Your task to perform on an android device: View the shopping cart on bestbuy.com. Add "razer huntsman" to the cart on bestbuy.com, then select checkout. Image 0: 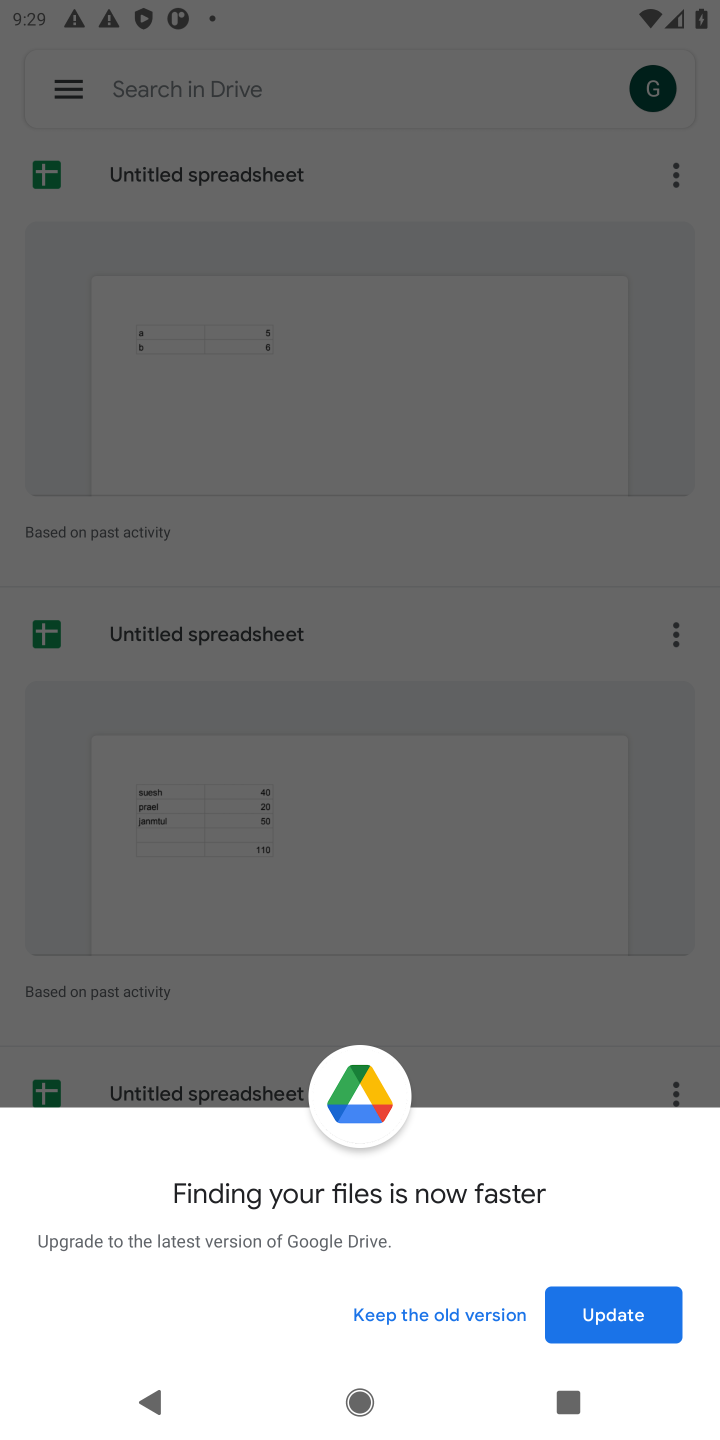
Step 0: press home button
Your task to perform on an android device: View the shopping cart on bestbuy.com. Add "razer huntsman" to the cart on bestbuy.com, then select checkout. Image 1: 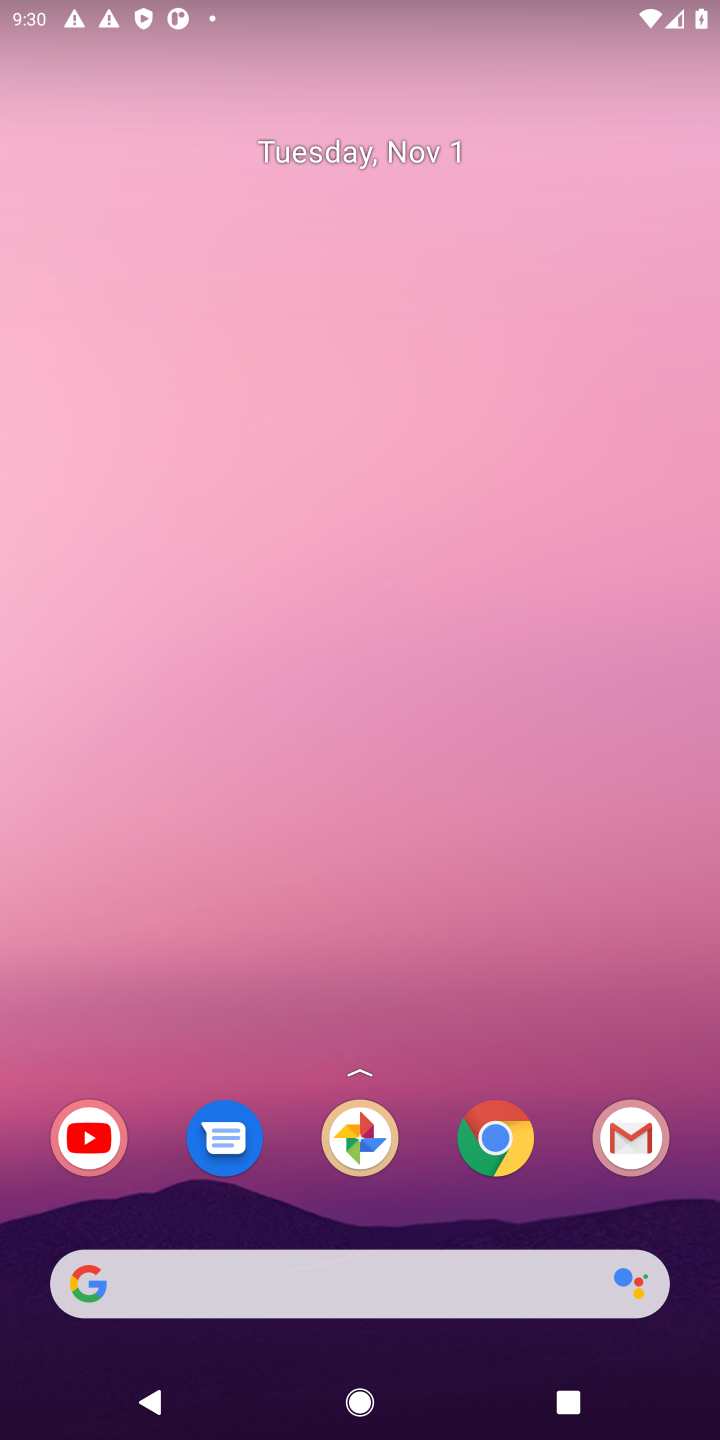
Step 1: click (488, 1121)
Your task to perform on an android device: View the shopping cart on bestbuy.com. Add "razer huntsman" to the cart on bestbuy.com, then select checkout. Image 2: 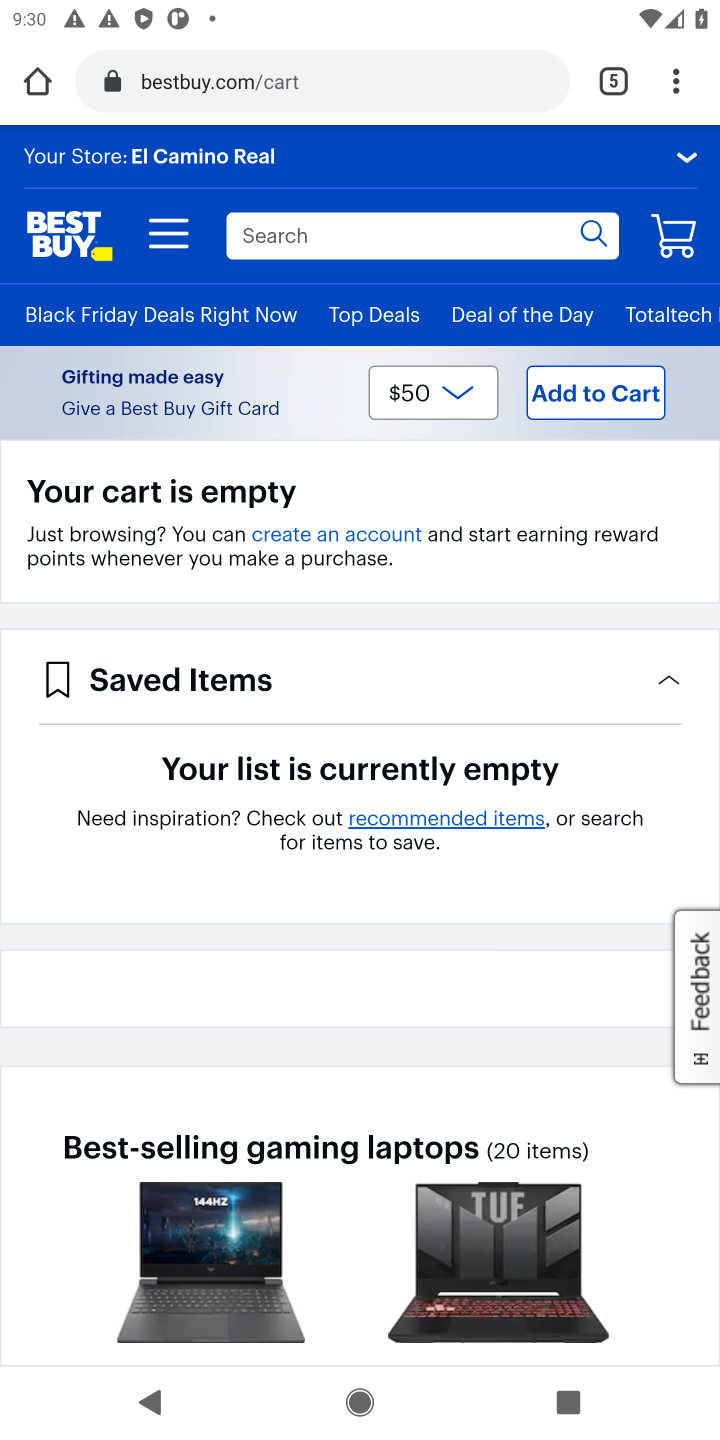
Step 2: drag from (672, 91) to (391, 158)
Your task to perform on an android device: View the shopping cart on bestbuy.com. Add "razer huntsman" to the cart on bestbuy.com, then select checkout. Image 3: 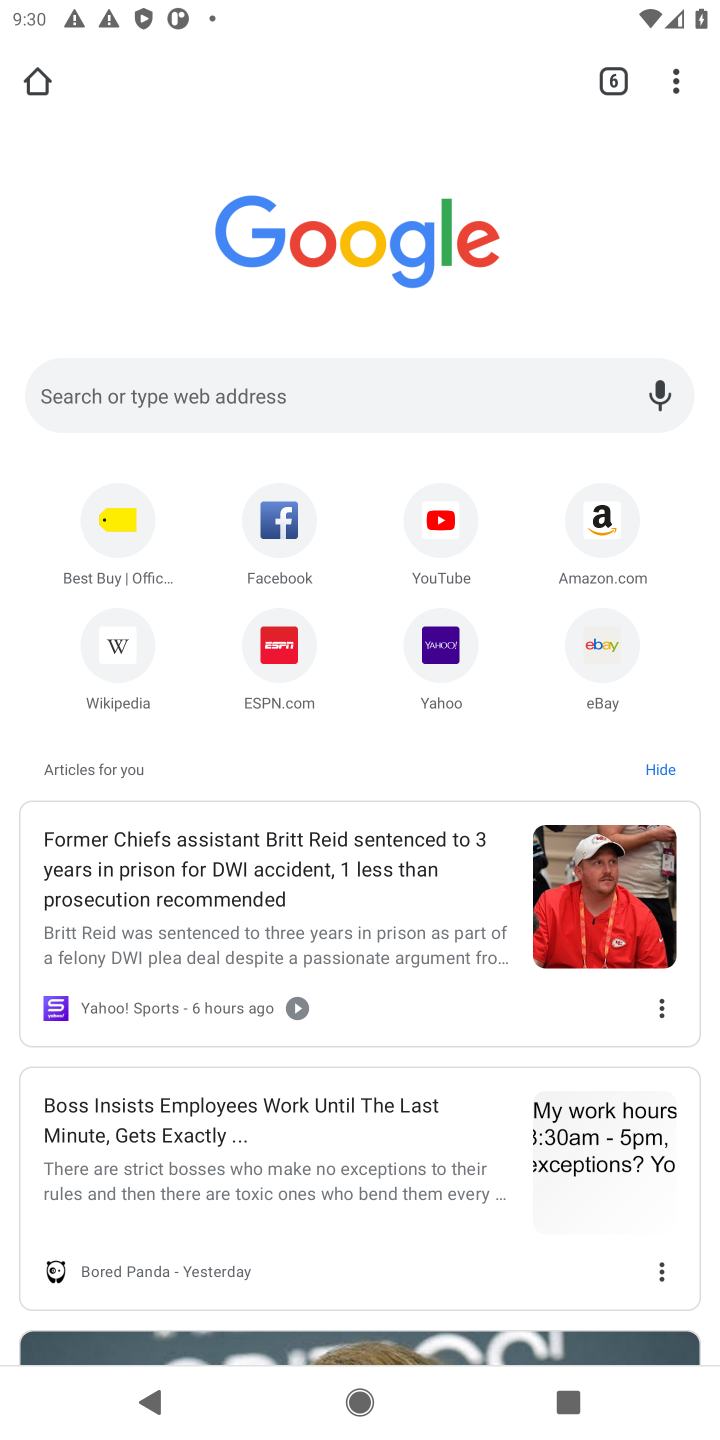
Step 3: click (341, 381)
Your task to perform on an android device: View the shopping cart on bestbuy.com. Add "razer huntsman" to the cart on bestbuy.com, then select checkout. Image 4: 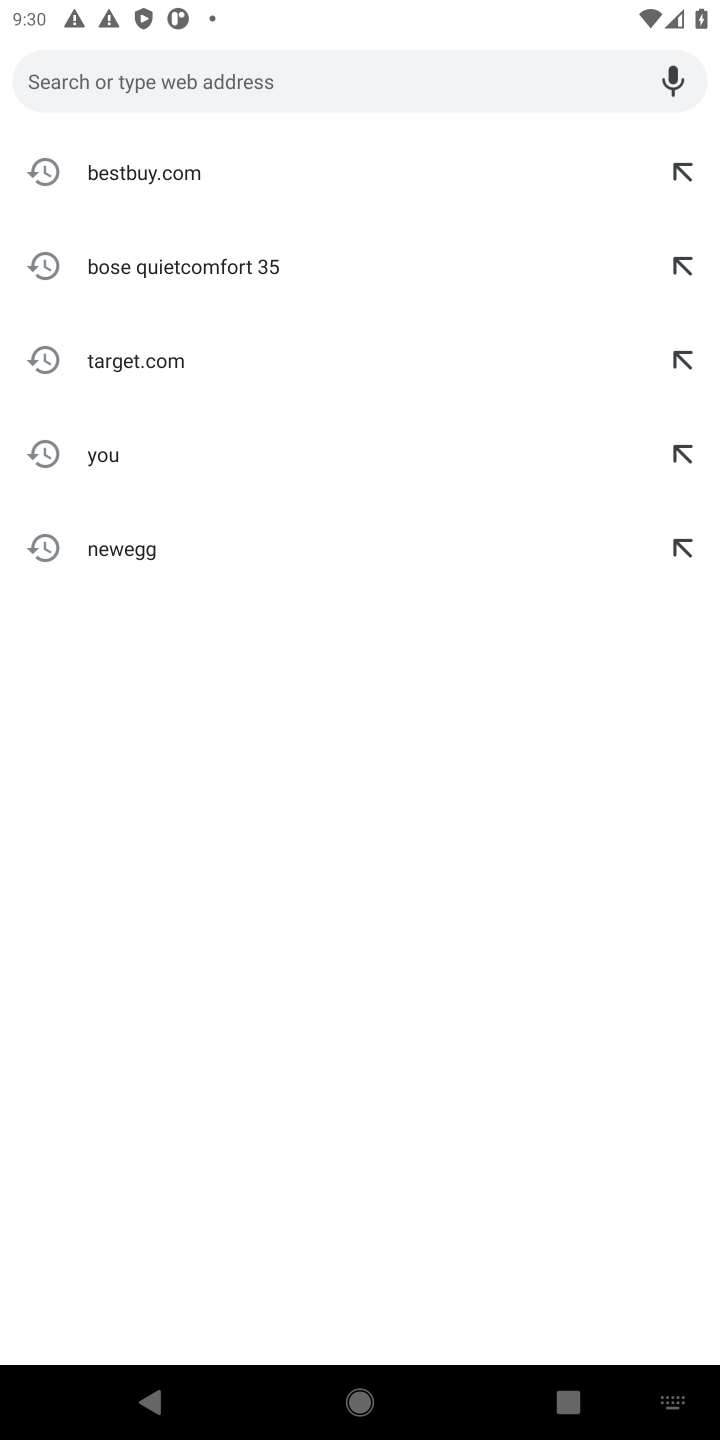
Step 4: type "bestbuy.com."
Your task to perform on an android device: View the shopping cart on bestbuy.com. Add "razer huntsman" to the cart on bestbuy.com, then select checkout. Image 5: 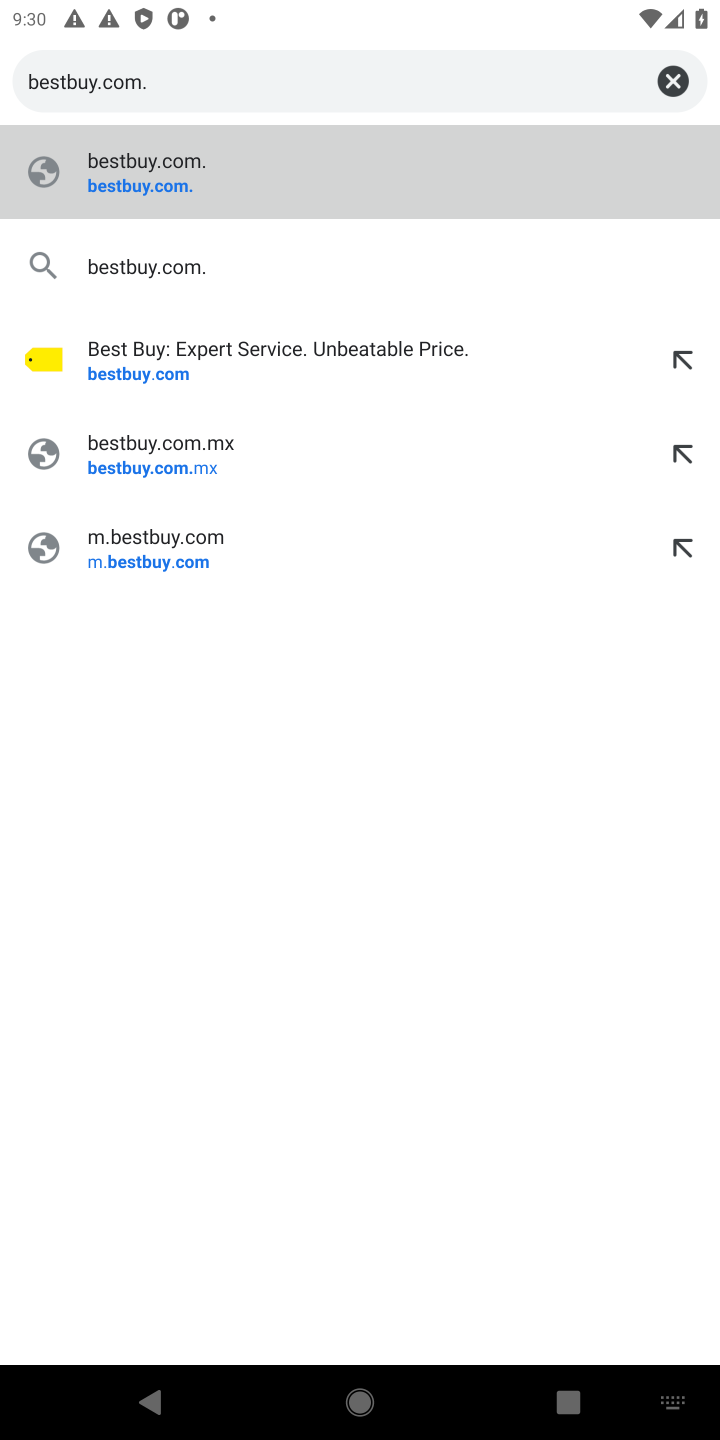
Step 5: type ""
Your task to perform on an android device: View the shopping cart on bestbuy.com. Add "razer huntsman" to the cart on bestbuy.com, then select checkout. Image 6: 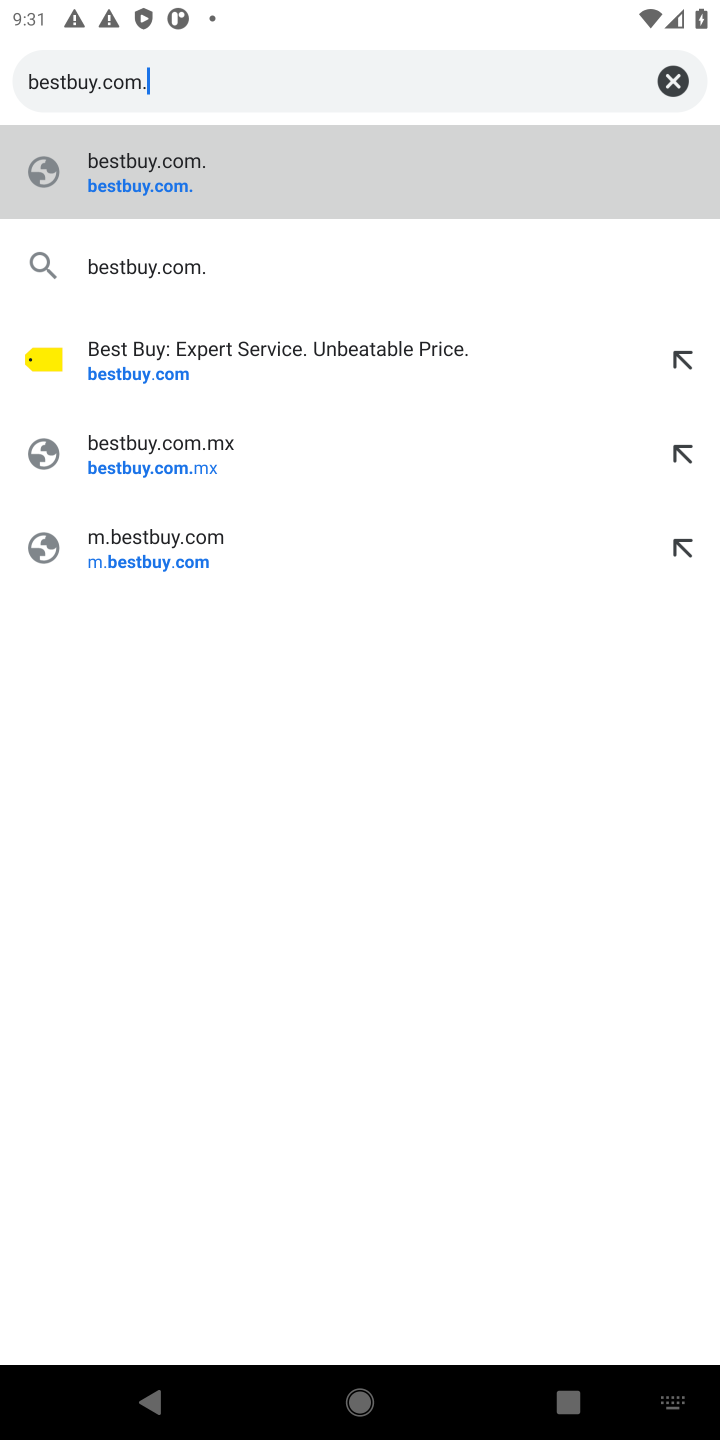
Step 6: click (152, 178)
Your task to perform on an android device: View the shopping cart on bestbuy.com. Add "razer huntsman" to the cart on bestbuy.com, then select checkout. Image 7: 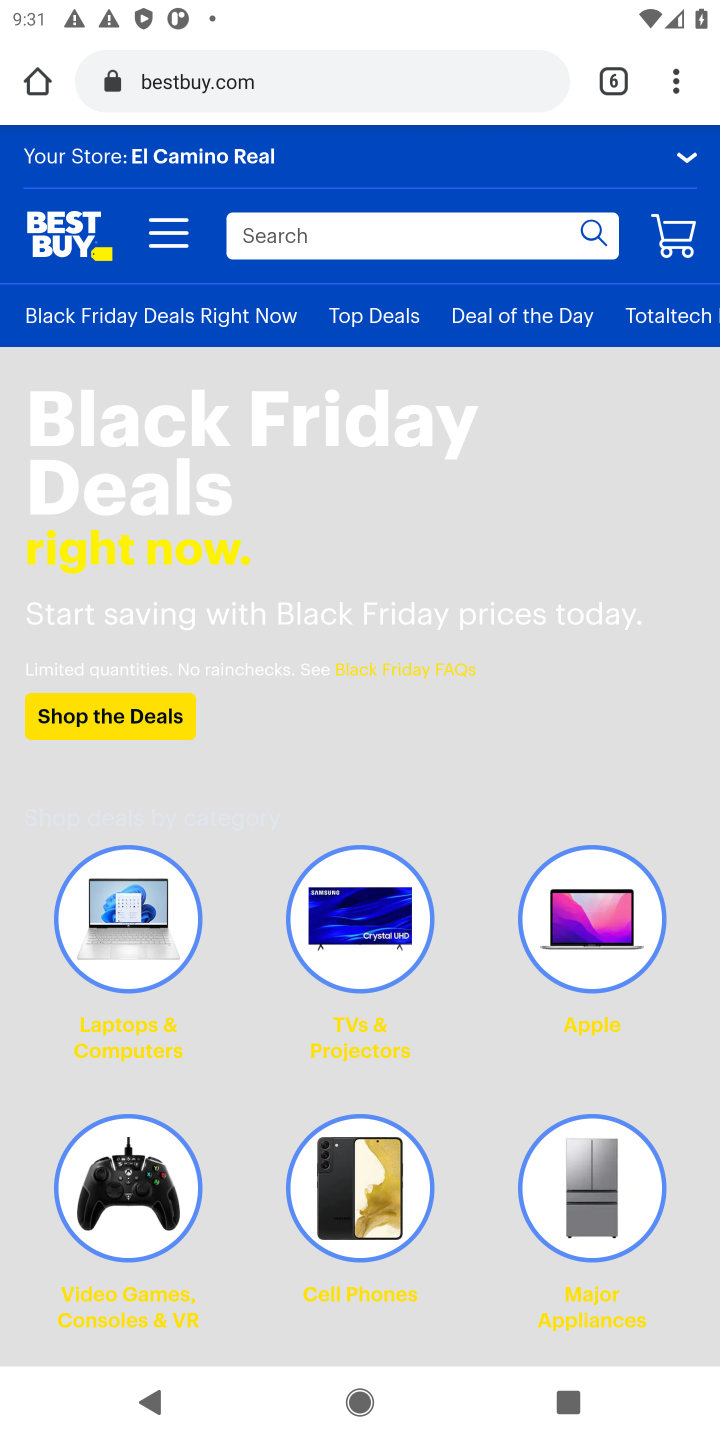
Step 7: click (467, 222)
Your task to perform on an android device: View the shopping cart on bestbuy.com. Add "razer huntsman" to the cart on bestbuy.com, then select checkout. Image 8: 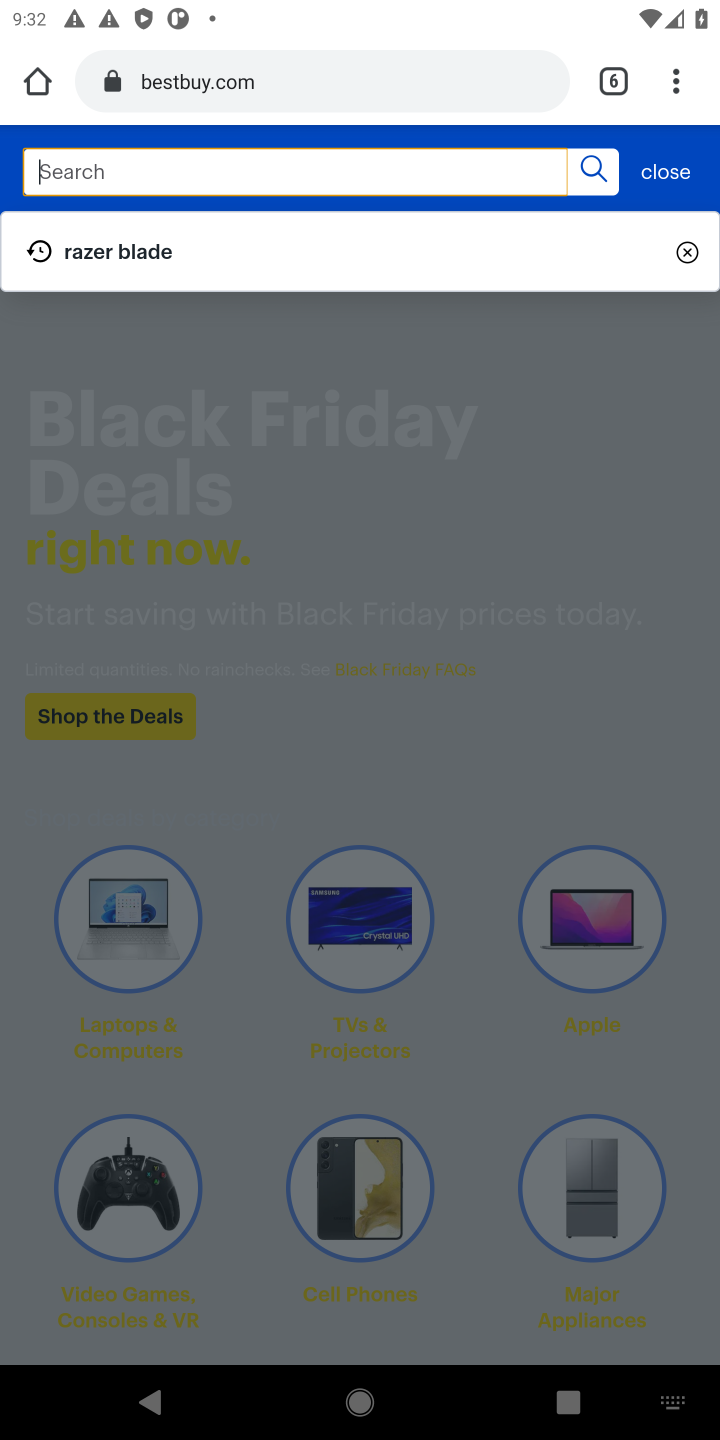
Step 8: type "razer huntsman"
Your task to perform on an android device: View the shopping cart on bestbuy.com. Add "razer huntsman" to the cart on bestbuy.com, then select checkout. Image 9: 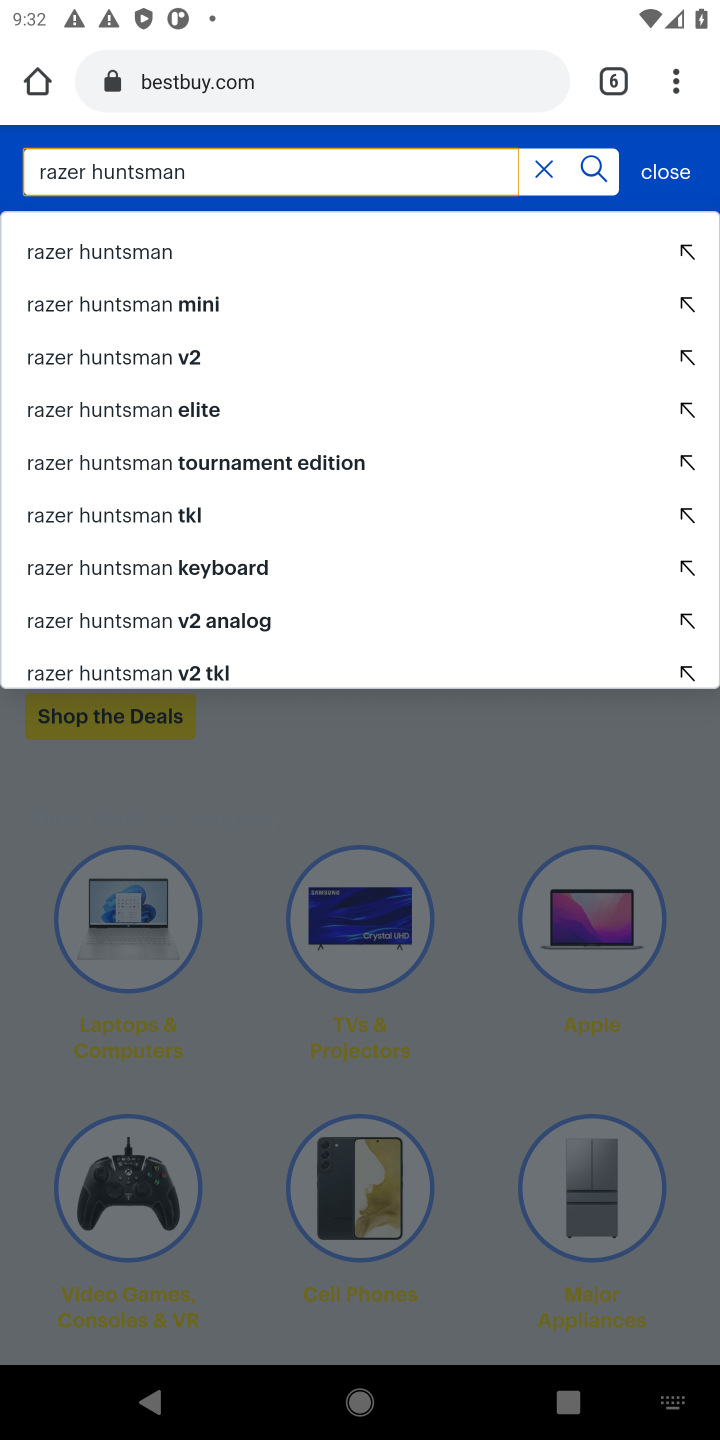
Step 9: click (125, 244)
Your task to perform on an android device: View the shopping cart on bestbuy.com. Add "razer huntsman" to the cart on bestbuy.com, then select checkout. Image 10: 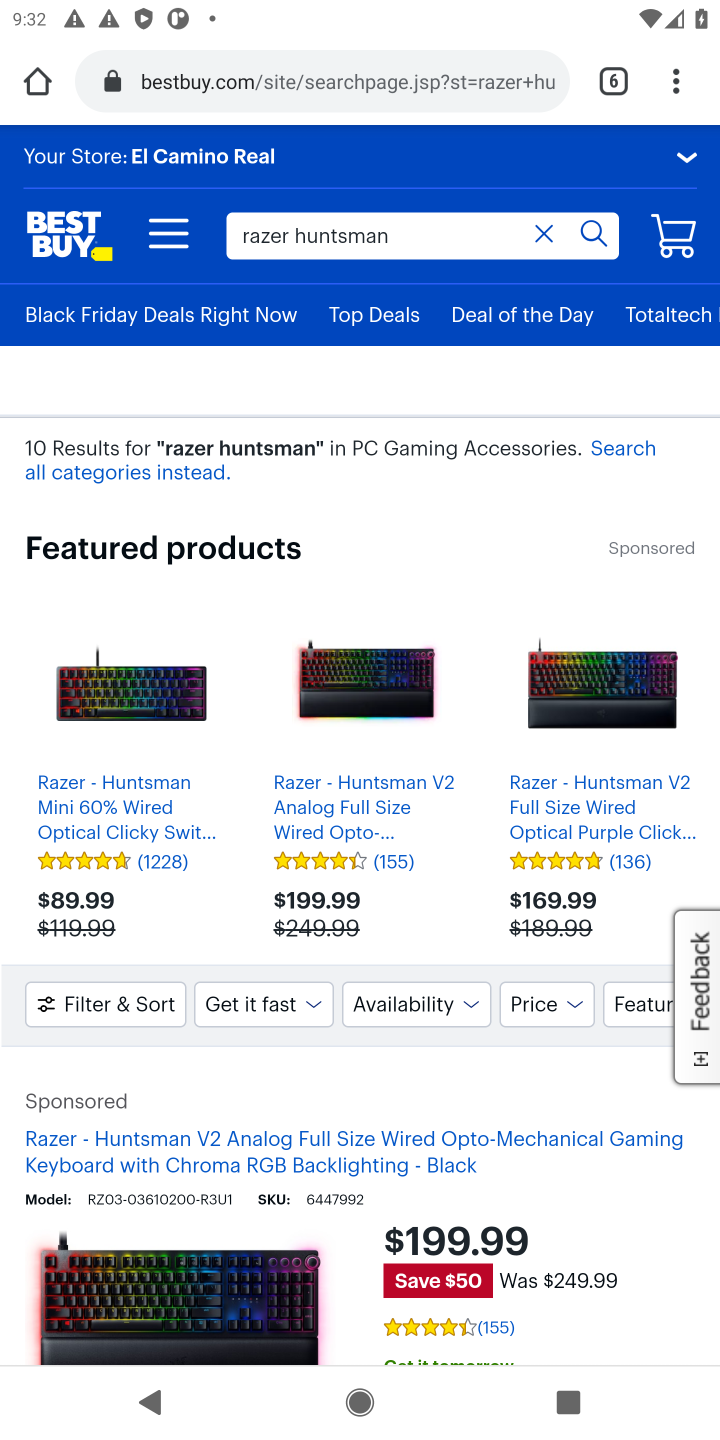
Step 10: drag from (524, 1328) to (493, 970)
Your task to perform on an android device: View the shopping cart on bestbuy.com. Add "razer huntsman" to the cart on bestbuy.com, then select checkout. Image 11: 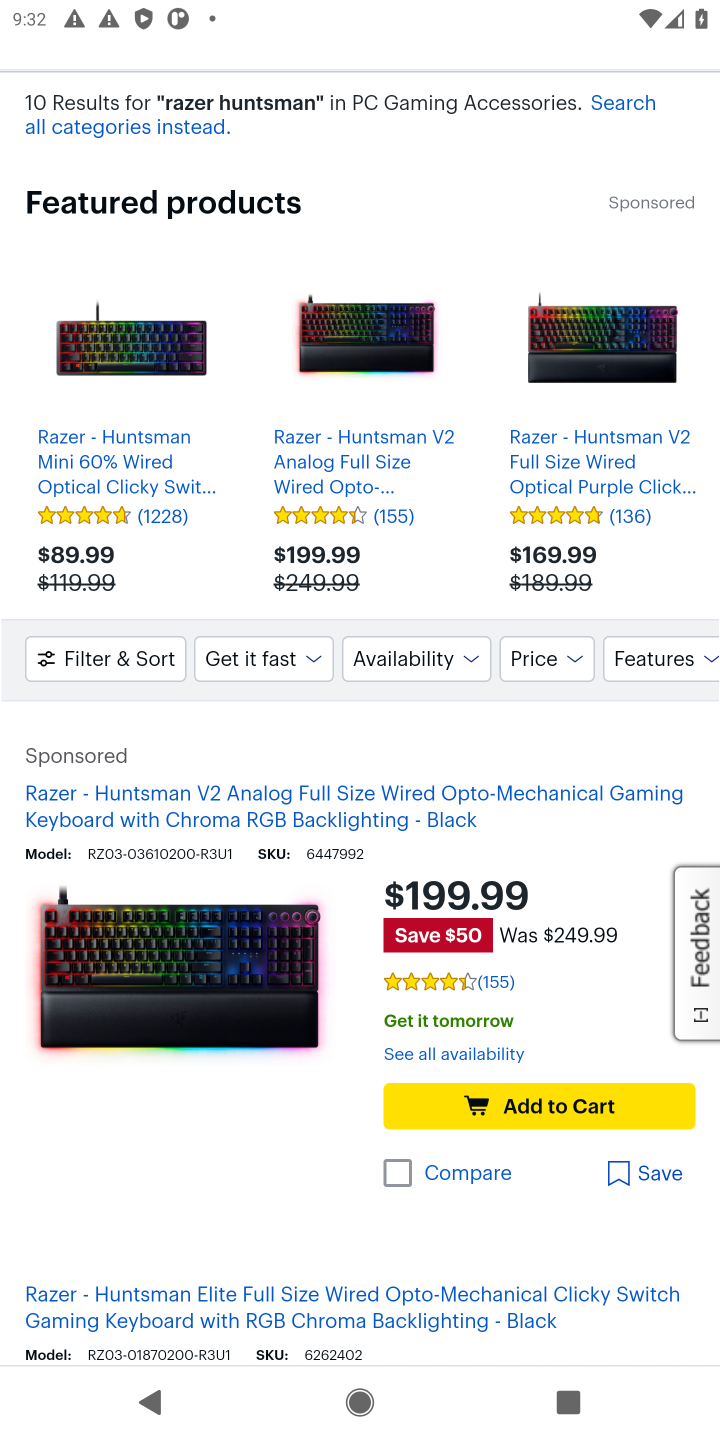
Step 11: click (534, 1111)
Your task to perform on an android device: View the shopping cart on bestbuy.com. Add "razer huntsman" to the cart on bestbuy.com, then select checkout. Image 12: 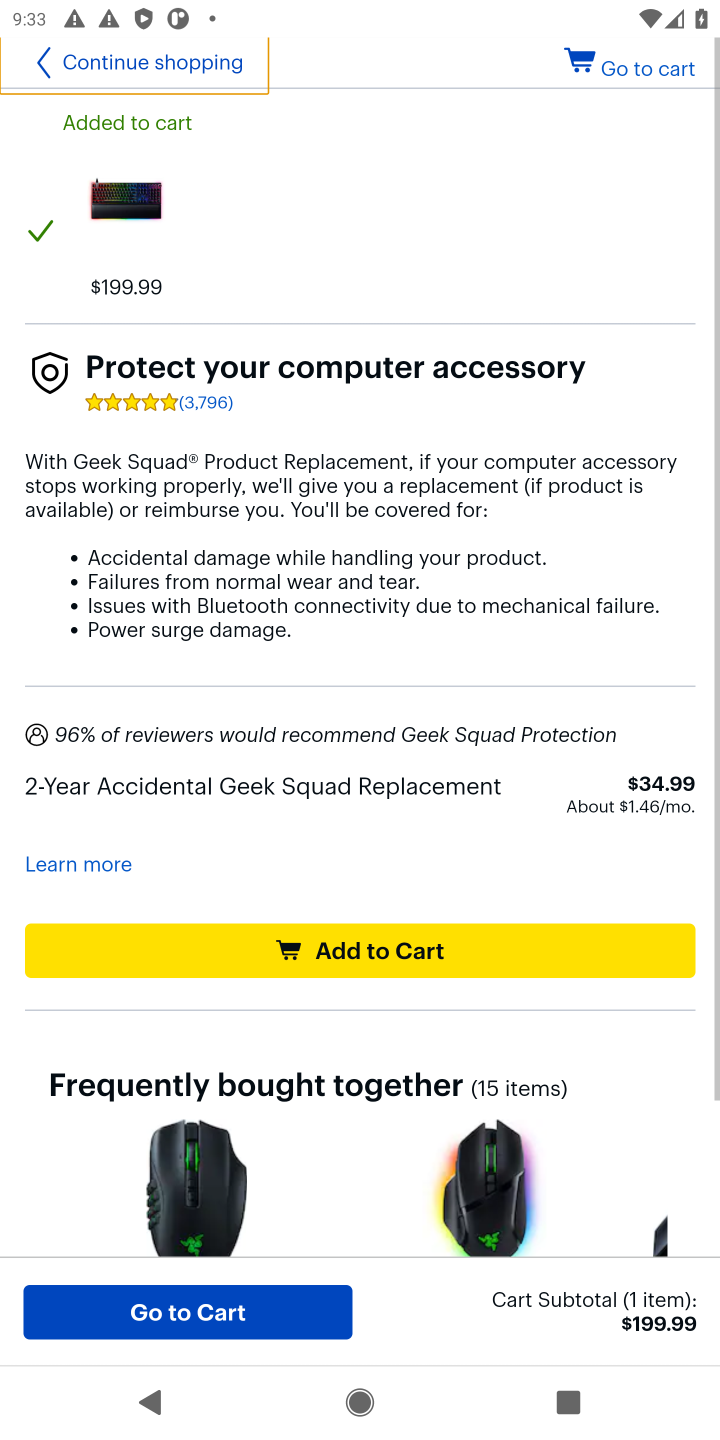
Step 12: click (420, 938)
Your task to perform on an android device: View the shopping cart on bestbuy.com. Add "razer huntsman" to the cart on bestbuy.com, then select checkout. Image 13: 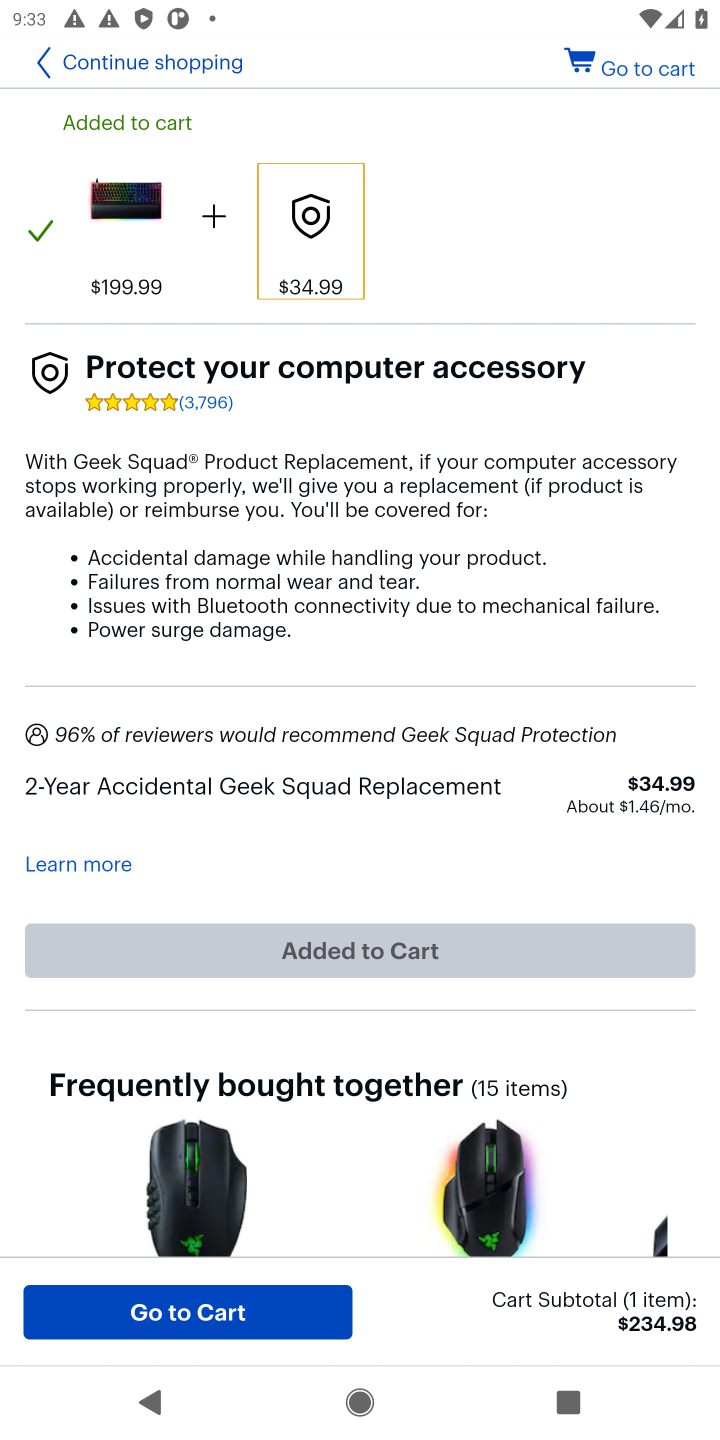
Step 13: task complete